Your task to perform on an android device: show emergency info Image 0: 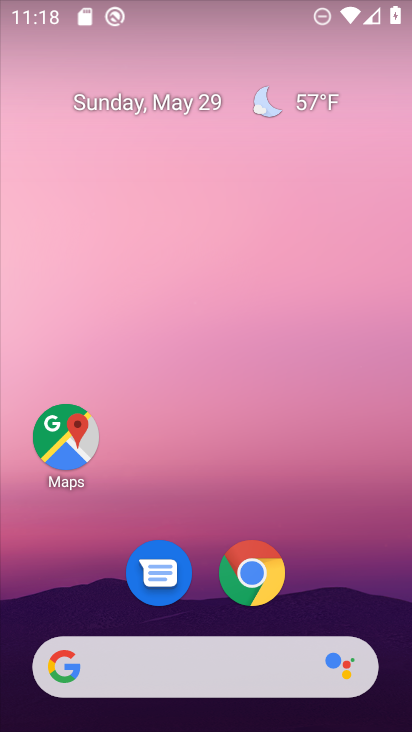
Step 0: drag from (183, 670) to (180, 28)
Your task to perform on an android device: show emergency info Image 1: 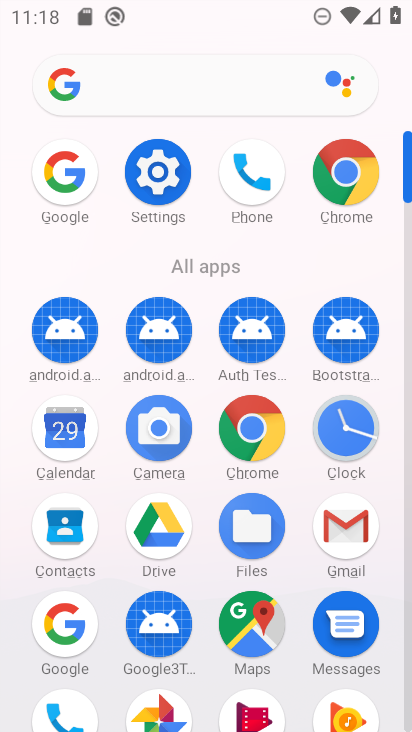
Step 1: click (172, 169)
Your task to perform on an android device: show emergency info Image 2: 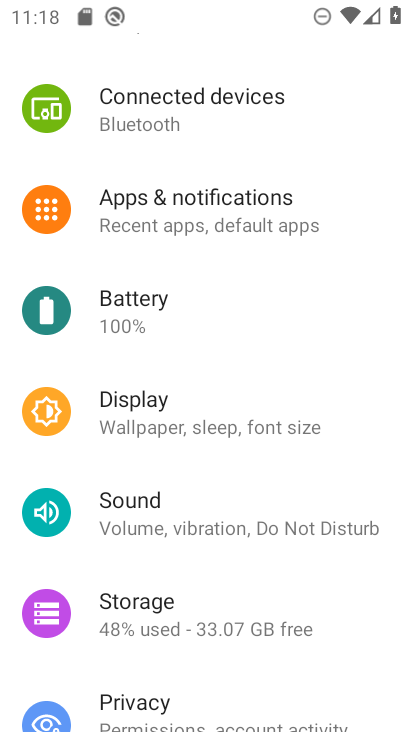
Step 2: drag from (225, 650) to (247, 79)
Your task to perform on an android device: show emergency info Image 3: 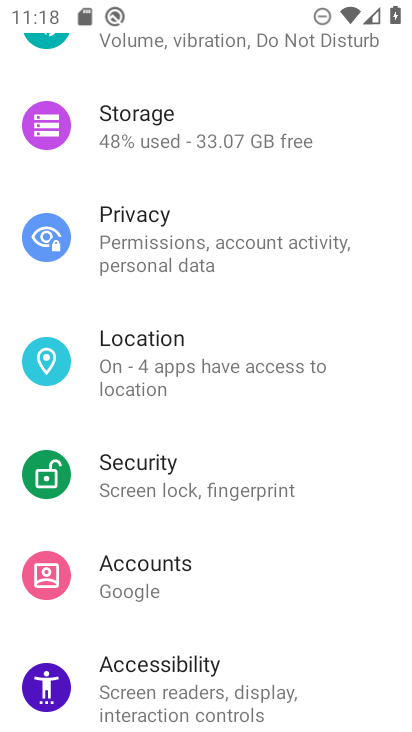
Step 3: drag from (331, 592) to (346, 19)
Your task to perform on an android device: show emergency info Image 4: 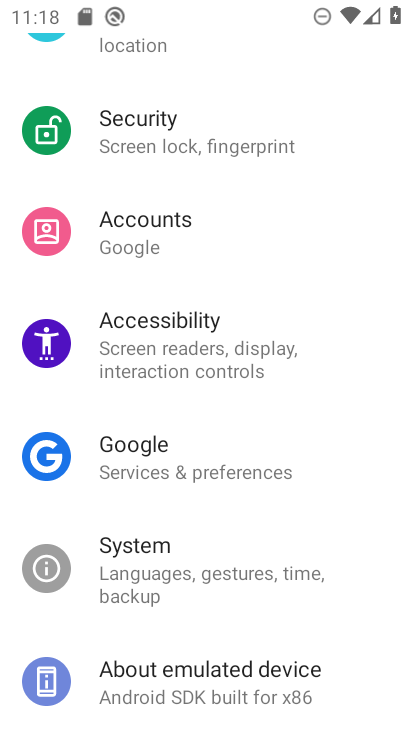
Step 4: click (210, 710)
Your task to perform on an android device: show emergency info Image 5: 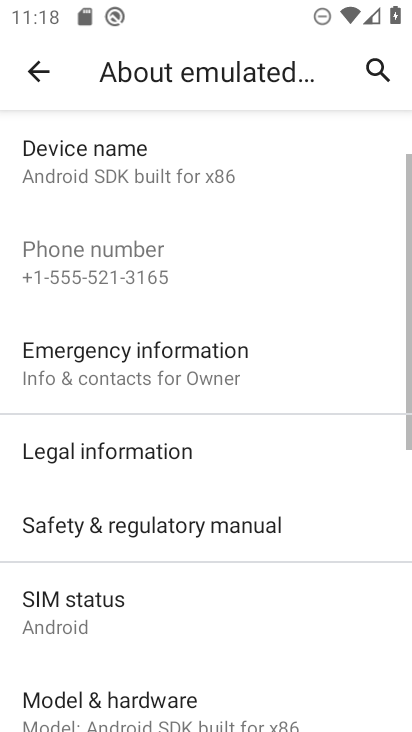
Step 5: click (153, 384)
Your task to perform on an android device: show emergency info Image 6: 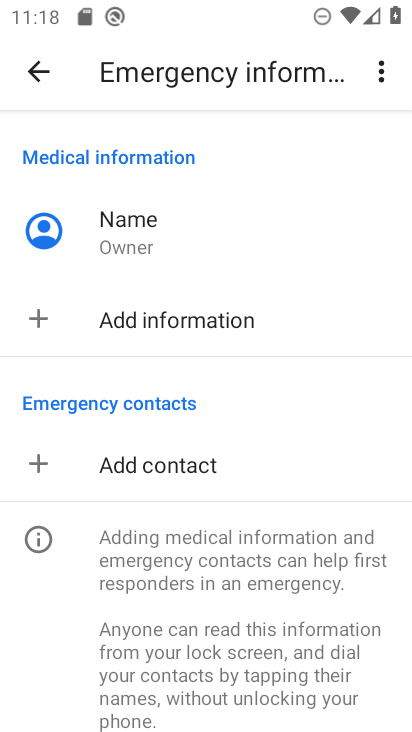
Step 6: task complete